Your task to perform on an android device: turn on airplane mode Image 0: 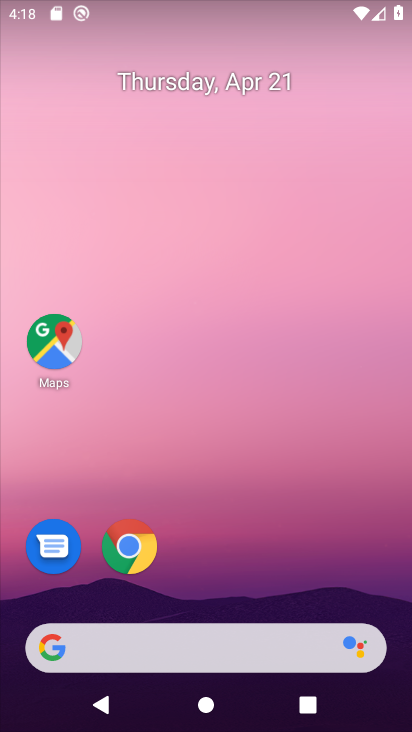
Step 0: drag from (247, 430) to (258, 103)
Your task to perform on an android device: turn on airplane mode Image 1: 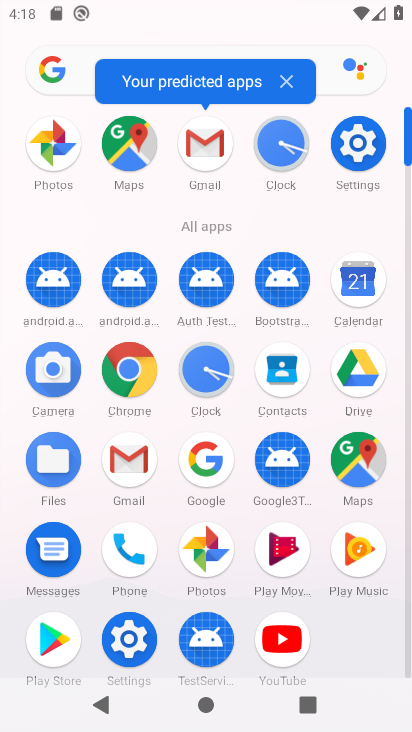
Step 1: click (367, 133)
Your task to perform on an android device: turn on airplane mode Image 2: 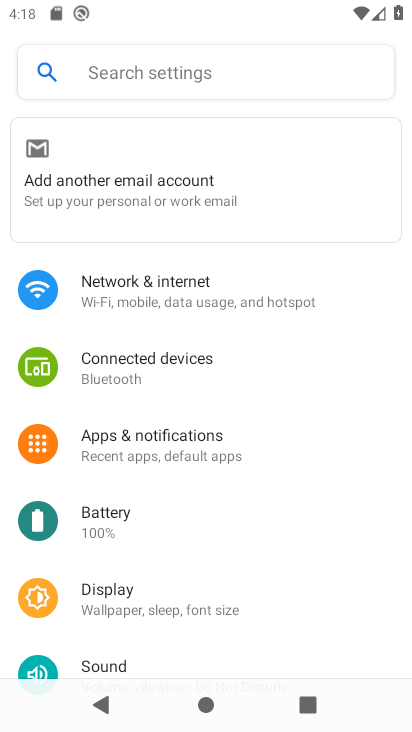
Step 2: click (255, 294)
Your task to perform on an android device: turn on airplane mode Image 3: 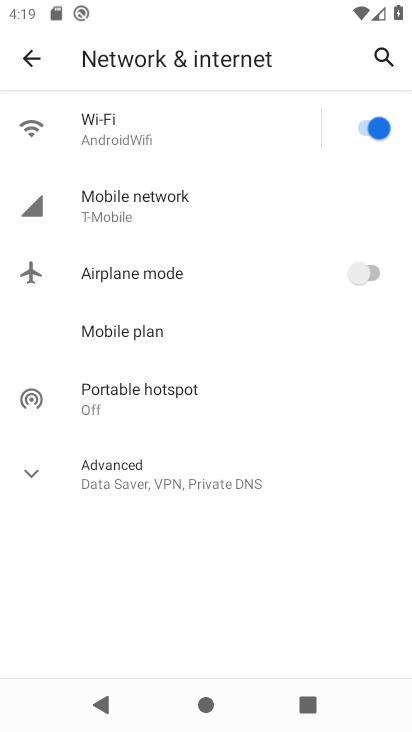
Step 3: click (350, 273)
Your task to perform on an android device: turn on airplane mode Image 4: 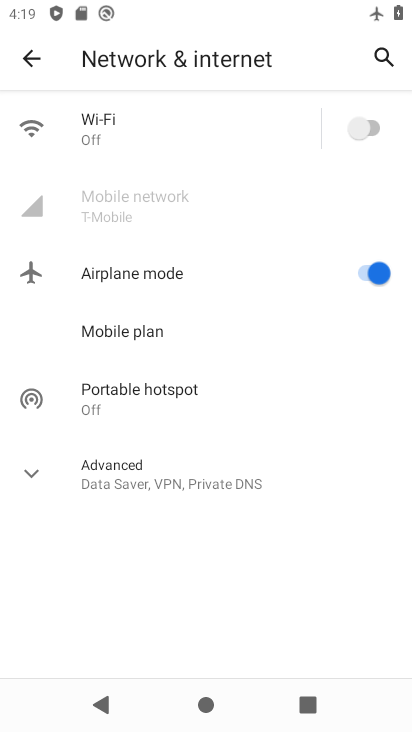
Step 4: task complete